Your task to perform on an android device: Go to settings Image 0: 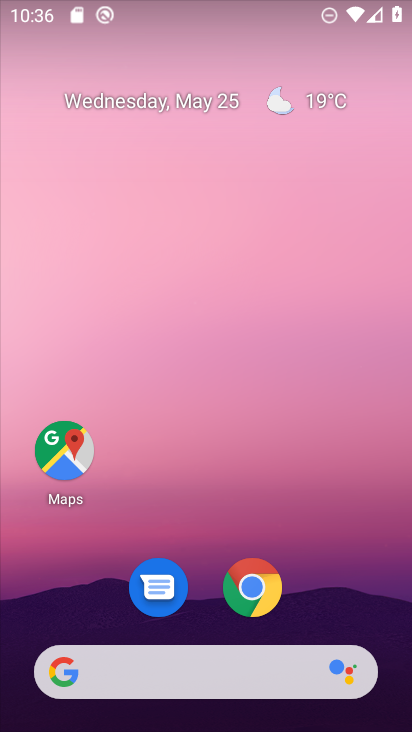
Step 0: drag from (393, 629) to (318, 69)
Your task to perform on an android device: Go to settings Image 1: 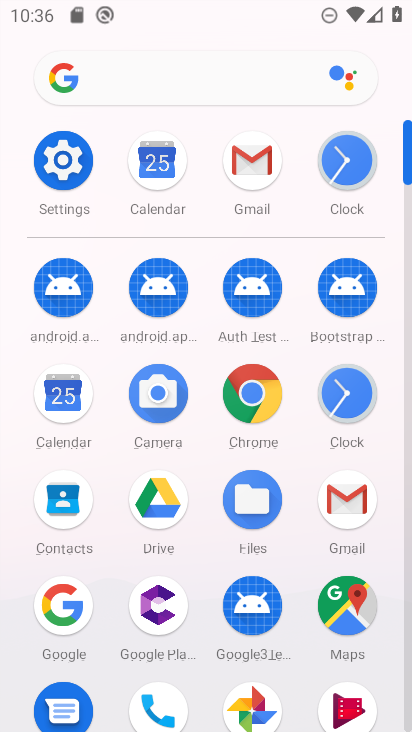
Step 1: click (407, 693)
Your task to perform on an android device: Go to settings Image 2: 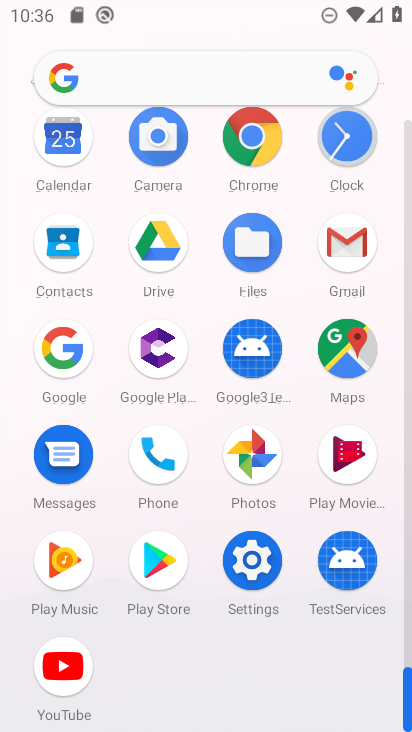
Step 2: click (254, 560)
Your task to perform on an android device: Go to settings Image 3: 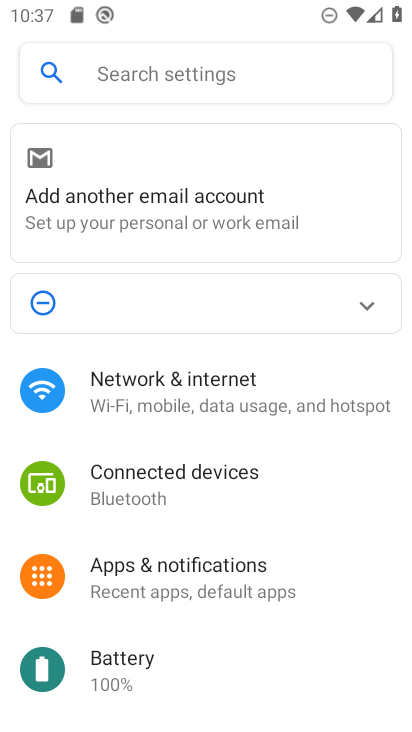
Step 3: task complete